Your task to perform on an android device: Go to calendar. Show me events next week Image 0: 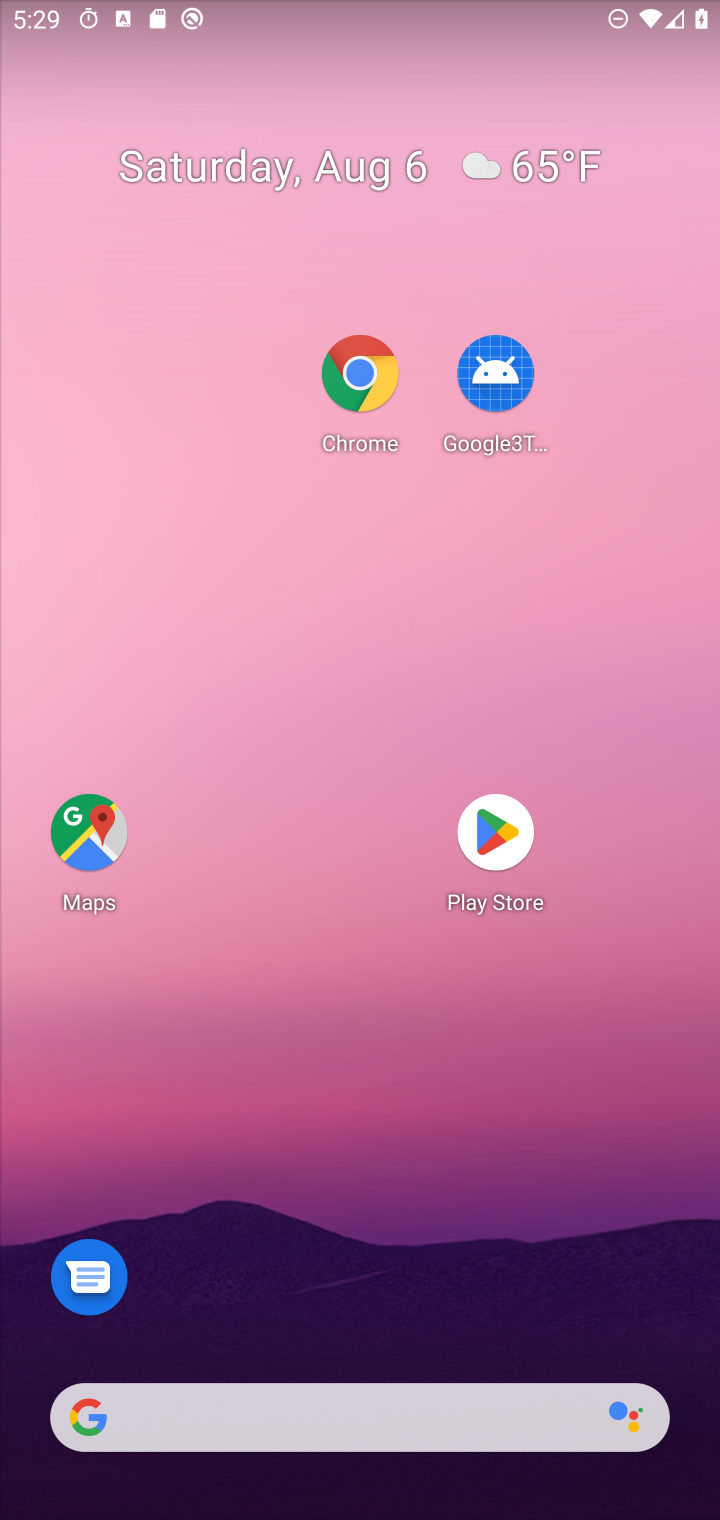
Step 0: drag from (369, 384) to (369, 282)
Your task to perform on an android device: Go to calendar. Show me events next week Image 1: 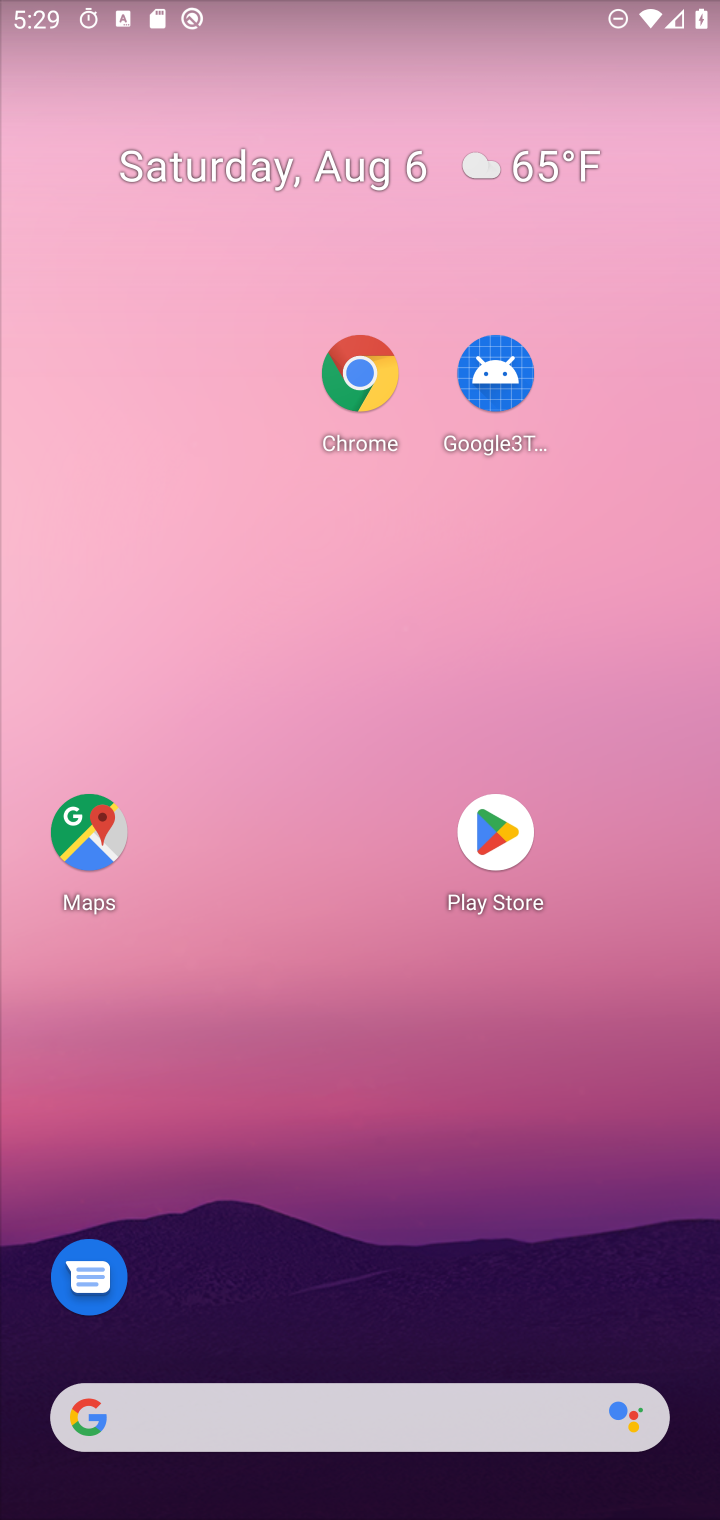
Step 1: drag from (437, 1414) to (287, 30)
Your task to perform on an android device: Go to calendar. Show me events next week Image 2: 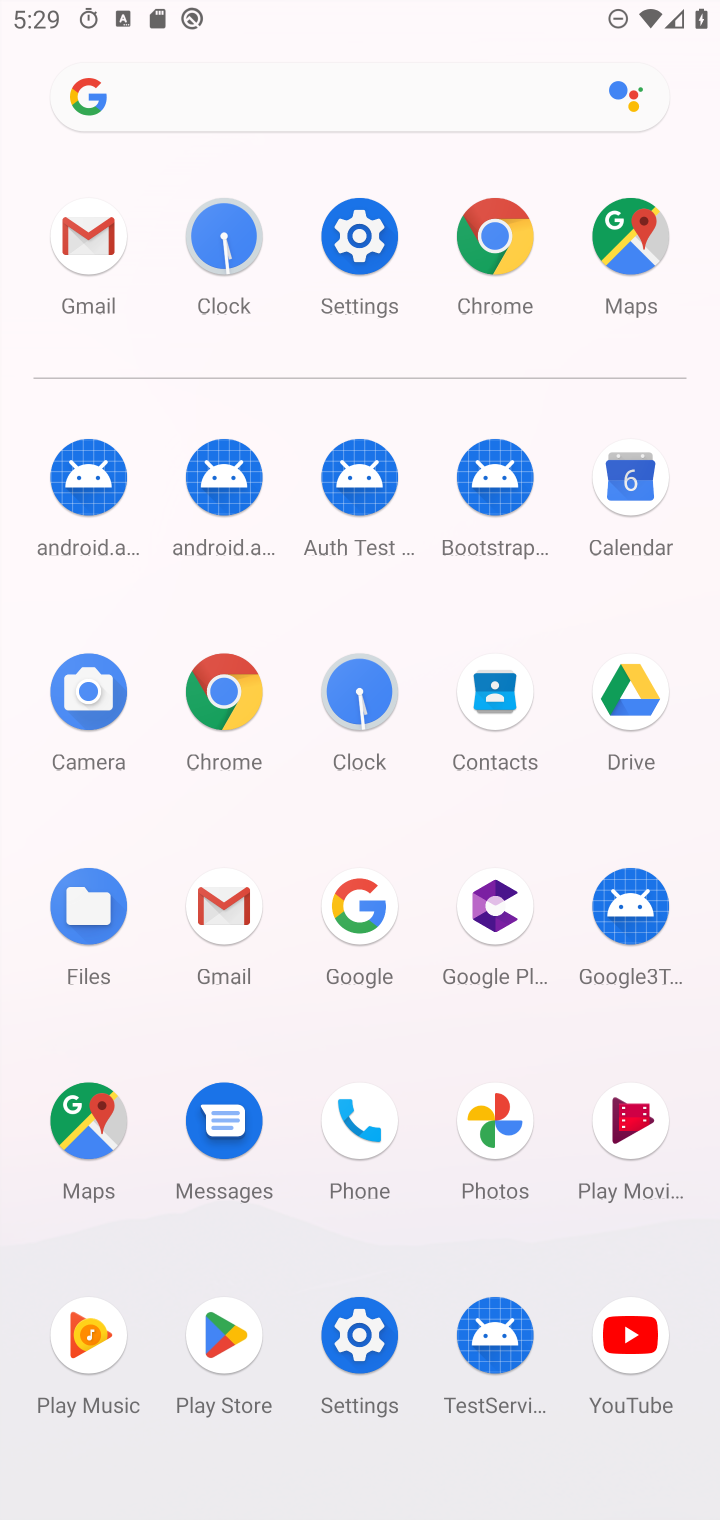
Step 2: click (632, 479)
Your task to perform on an android device: Go to calendar. Show me events next week Image 3: 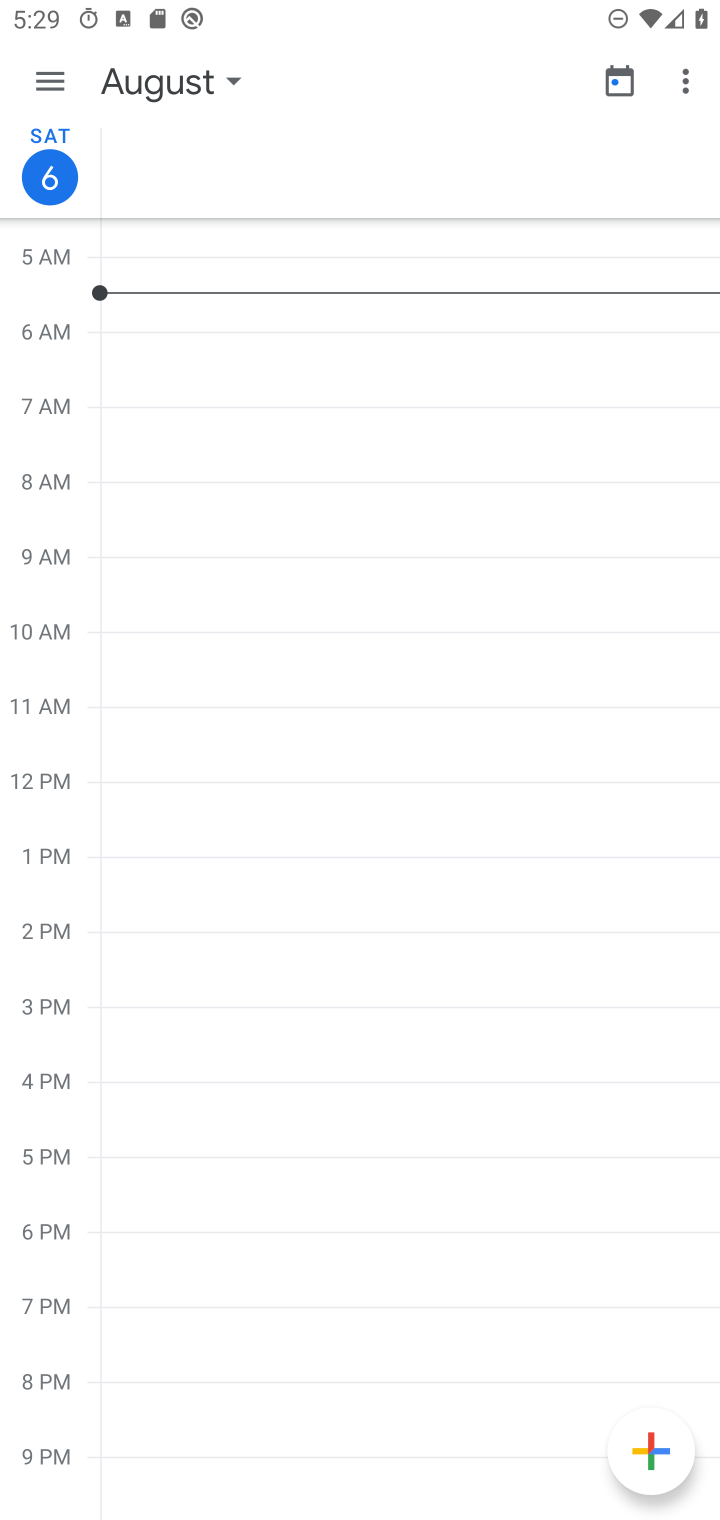
Step 3: click (213, 62)
Your task to perform on an android device: Go to calendar. Show me events next week Image 4: 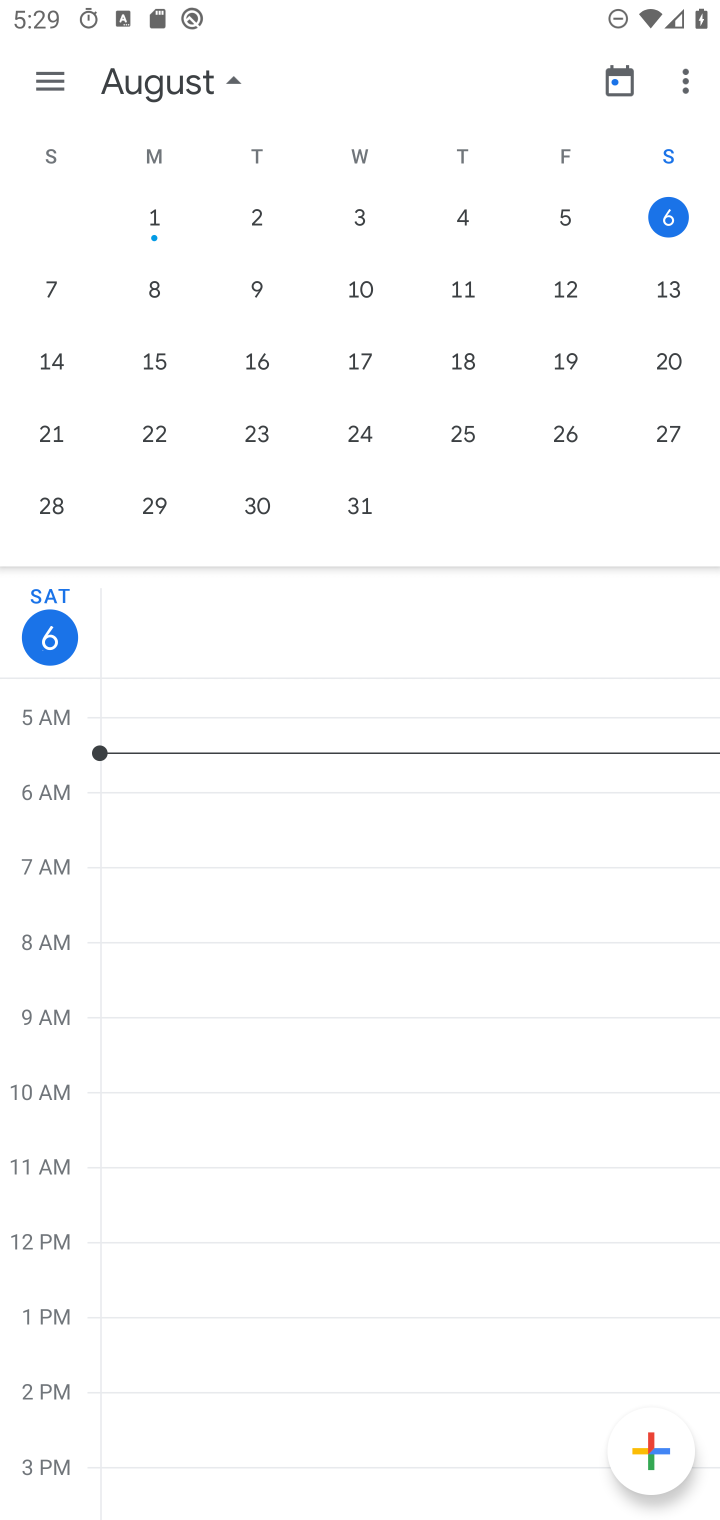
Step 4: click (359, 291)
Your task to perform on an android device: Go to calendar. Show me events next week Image 5: 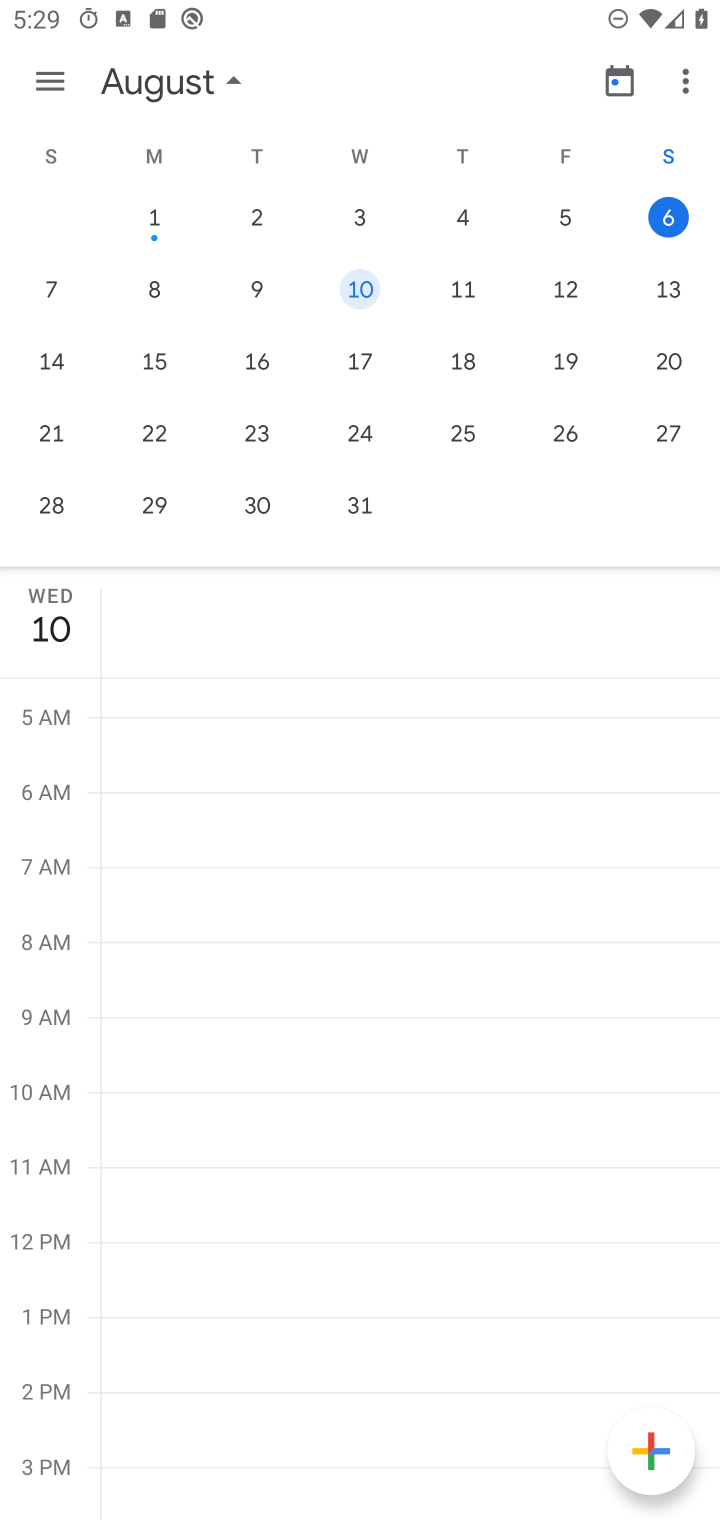
Step 5: click (61, 80)
Your task to perform on an android device: Go to calendar. Show me events next week Image 6: 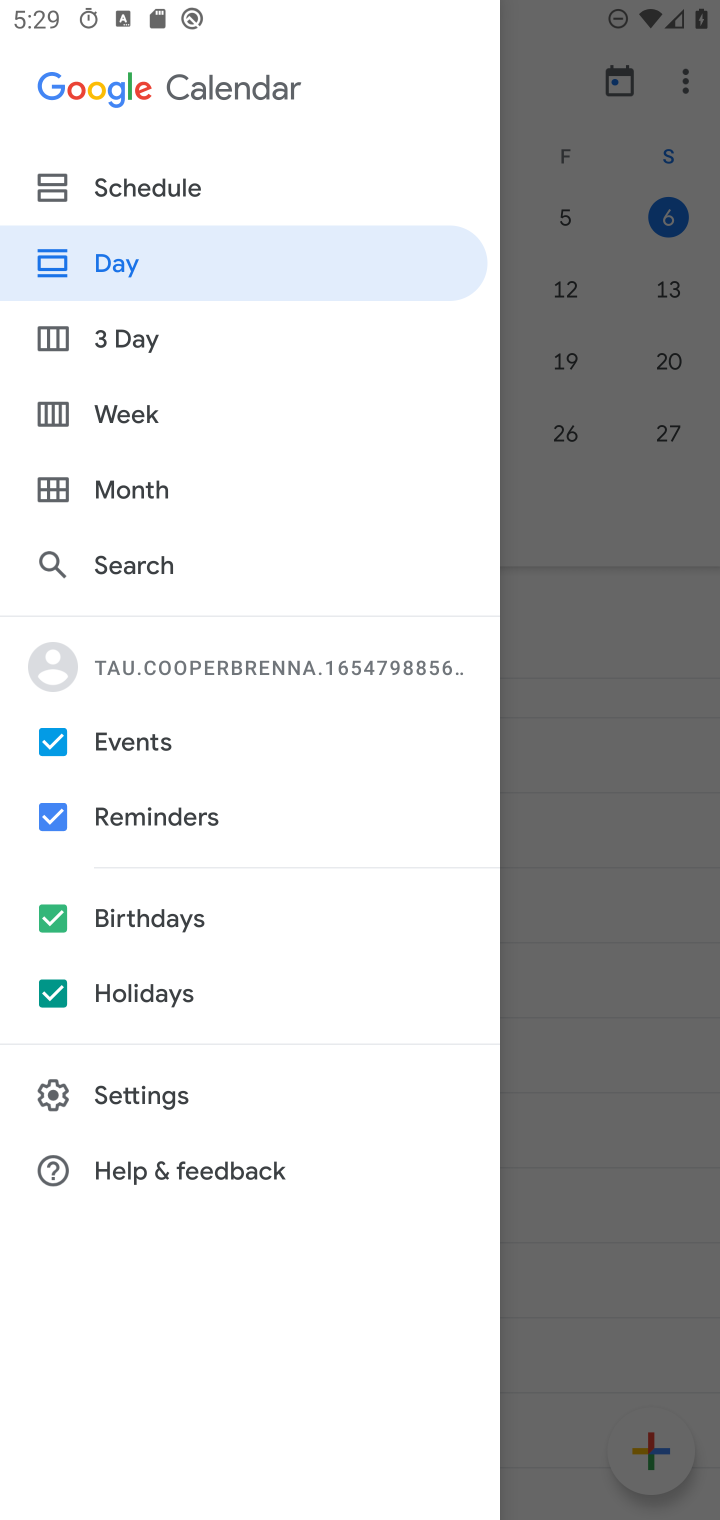
Step 6: click (140, 416)
Your task to perform on an android device: Go to calendar. Show me events next week Image 7: 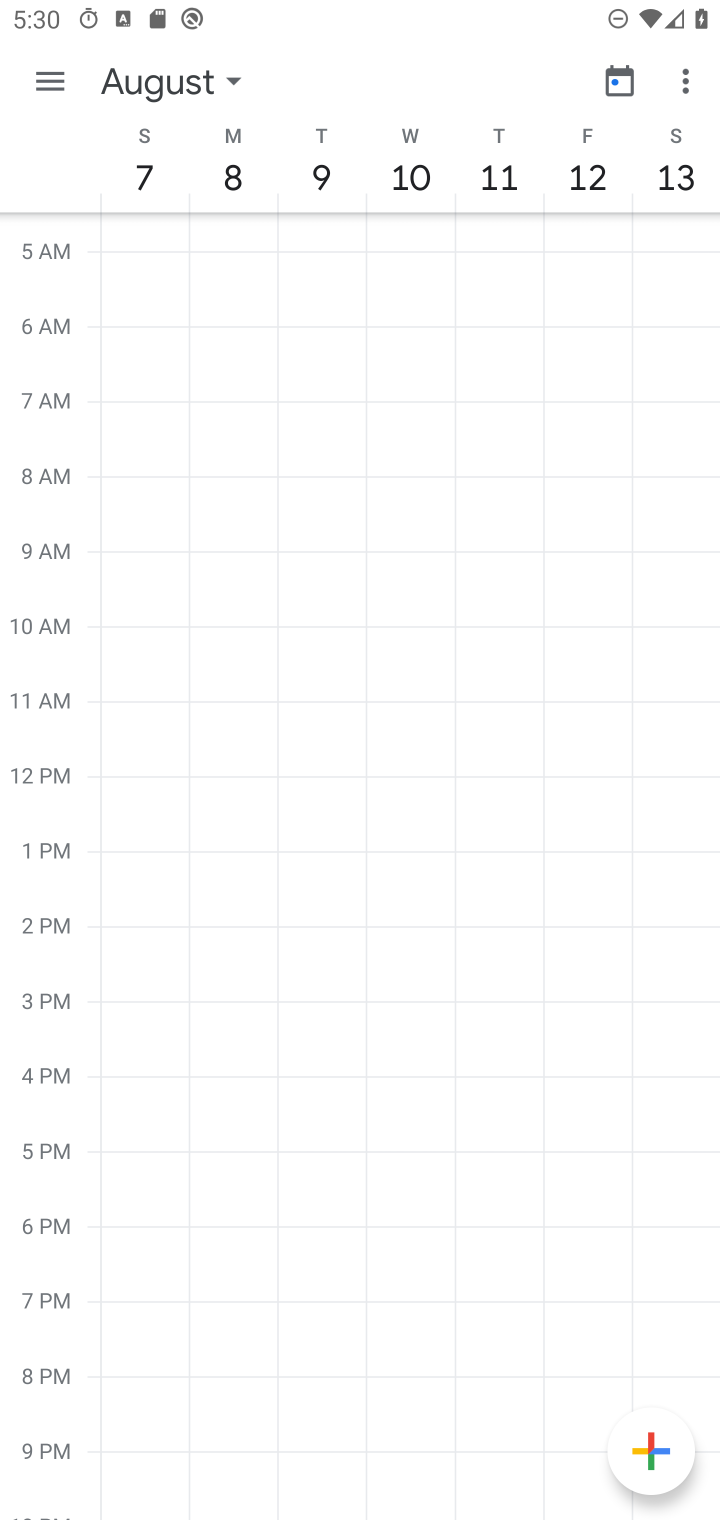
Step 7: task complete